Your task to perform on an android device: Check the news Image 0: 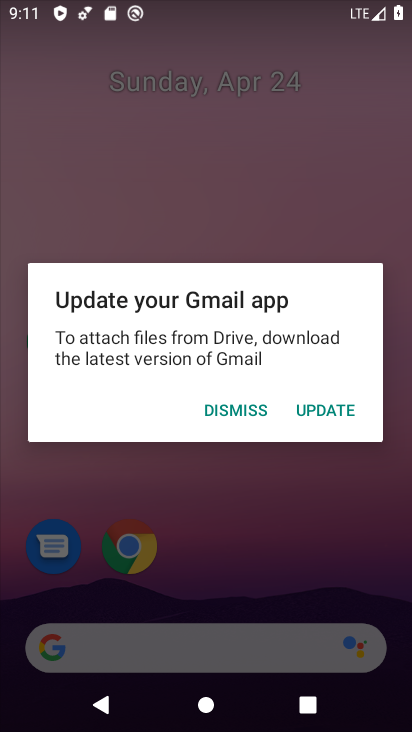
Step 0: click (309, 407)
Your task to perform on an android device: Check the news Image 1: 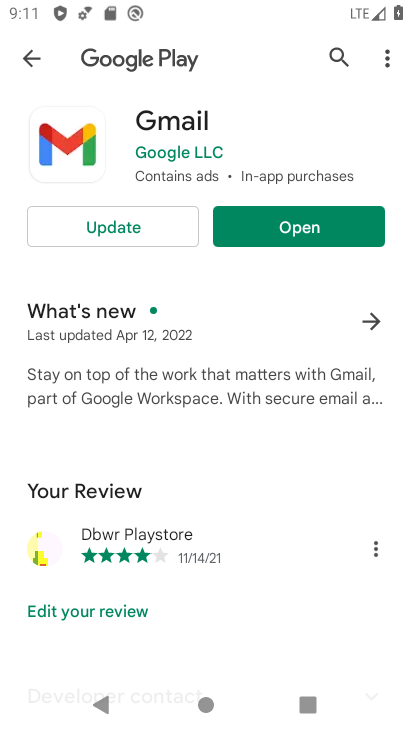
Step 1: click (130, 240)
Your task to perform on an android device: Check the news Image 2: 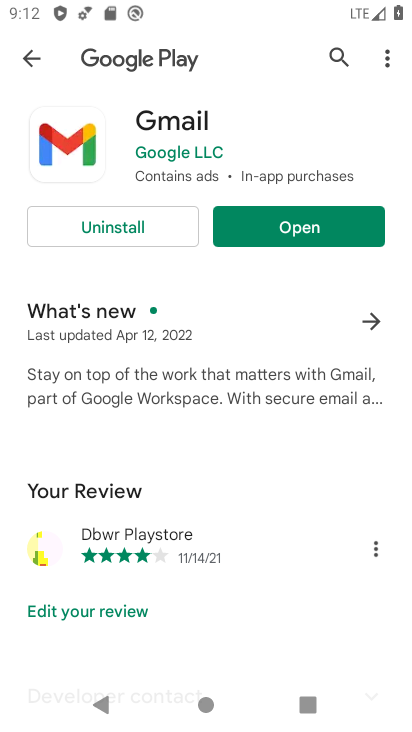
Step 2: press home button
Your task to perform on an android device: Check the news Image 3: 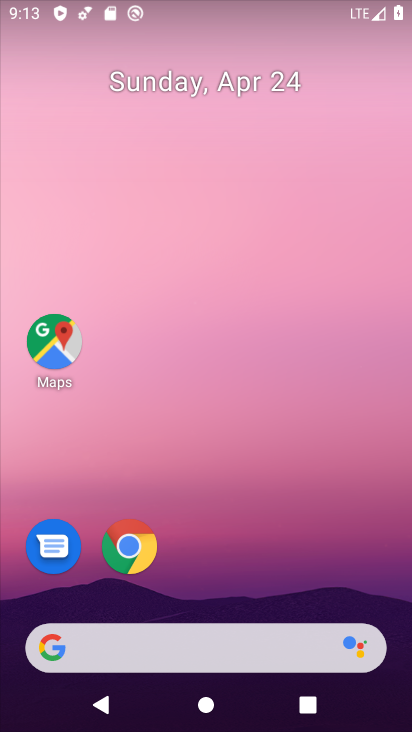
Step 3: click (132, 560)
Your task to perform on an android device: Check the news Image 4: 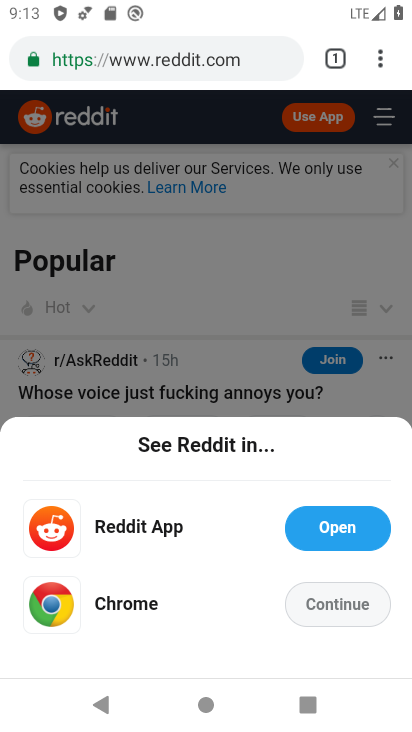
Step 4: click (331, 61)
Your task to perform on an android device: Check the news Image 5: 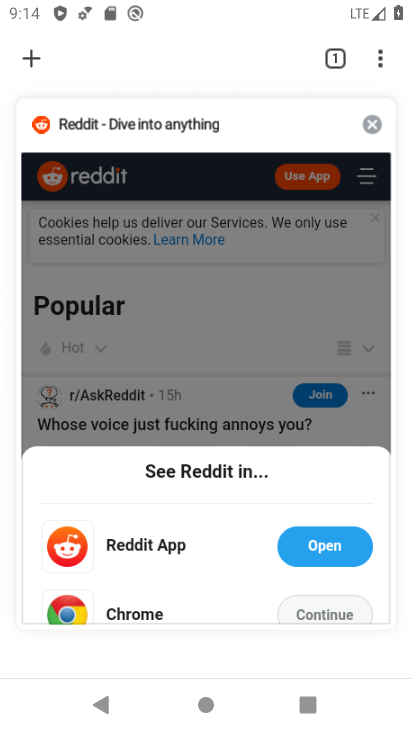
Step 5: click (37, 61)
Your task to perform on an android device: Check the news Image 6: 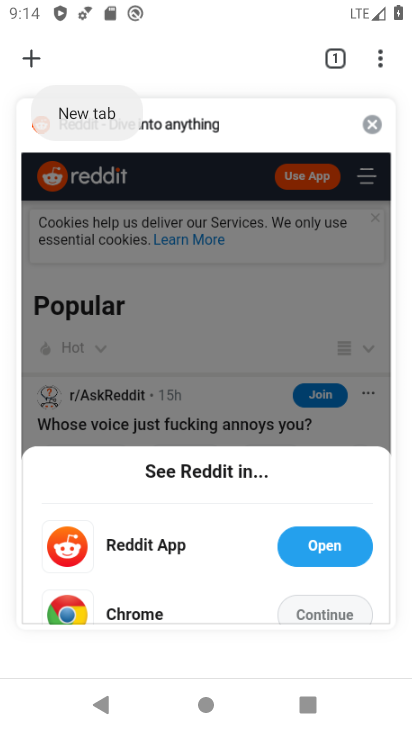
Step 6: click (82, 112)
Your task to perform on an android device: Check the news Image 7: 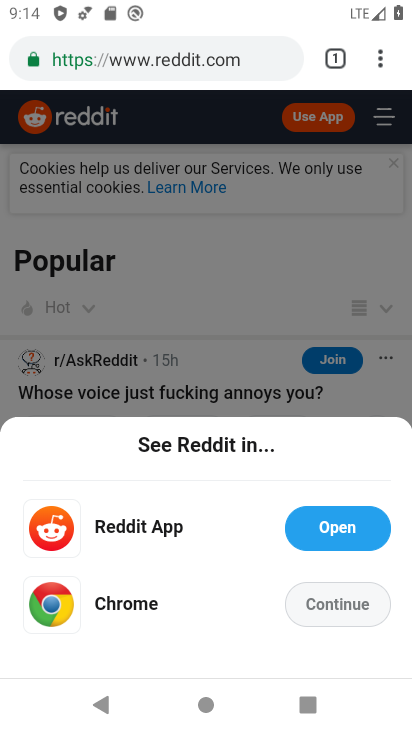
Step 7: click (333, 68)
Your task to perform on an android device: Check the news Image 8: 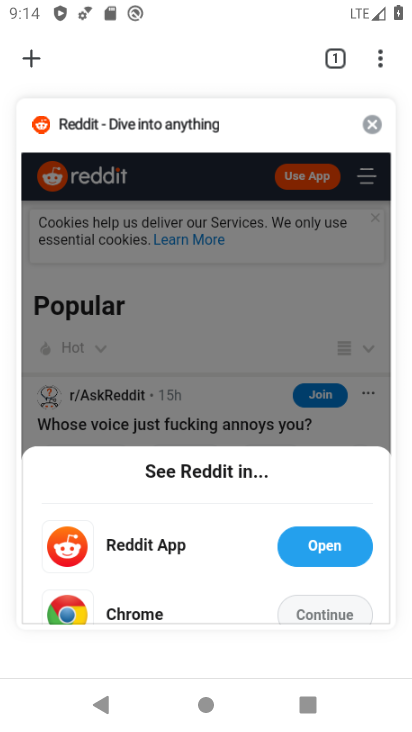
Step 8: click (47, 56)
Your task to perform on an android device: Check the news Image 9: 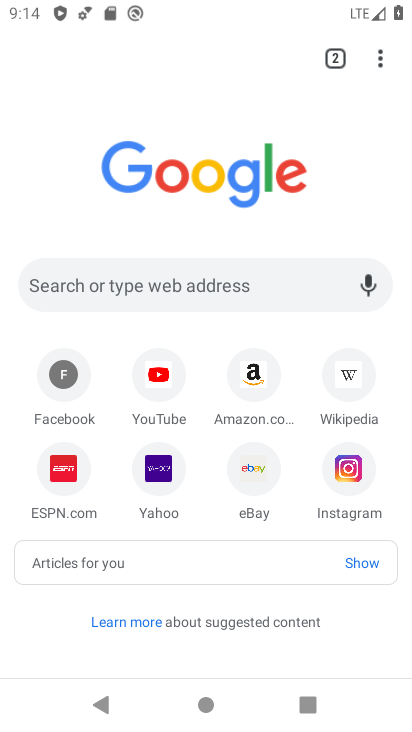
Step 9: drag from (206, 576) to (249, 337)
Your task to perform on an android device: Check the news Image 10: 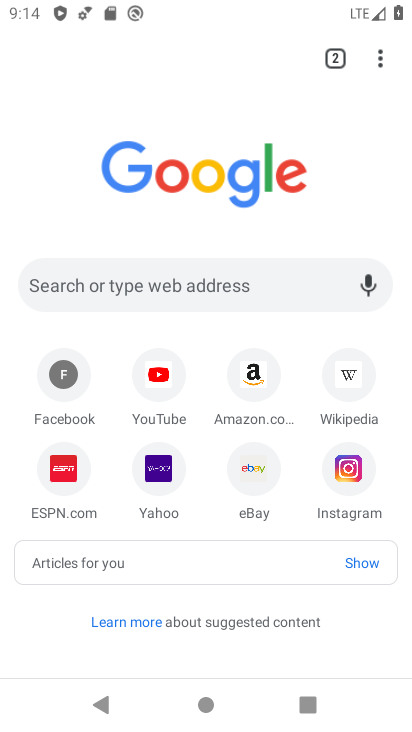
Step 10: click (357, 567)
Your task to perform on an android device: Check the news Image 11: 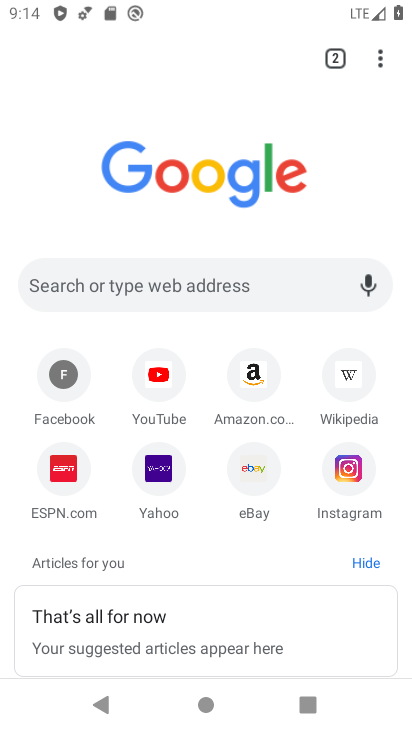
Step 11: drag from (310, 580) to (291, 150)
Your task to perform on an android device: Check the news Image 12: 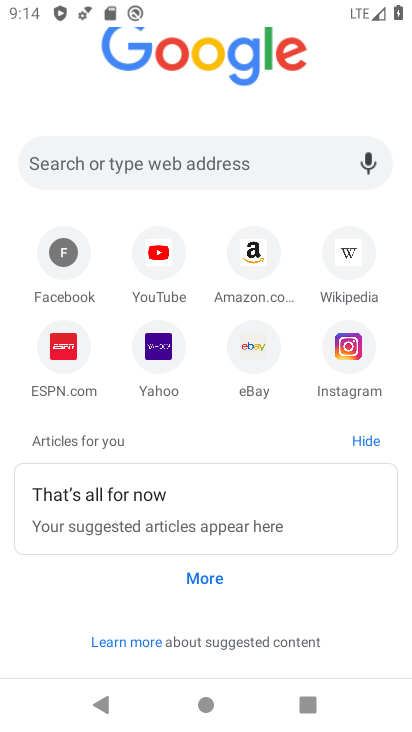
Step 12: click (209, 571)
Your task to perform on an android device: Check the news Image 13: 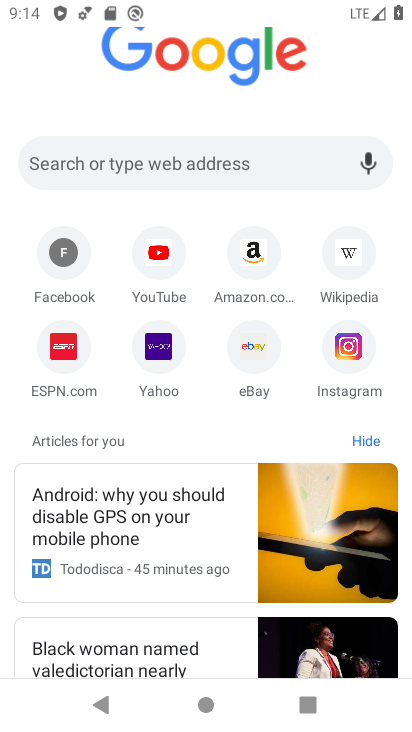
Step 13: task complete